Your task to perform on an android device: toggle location history Image 0: 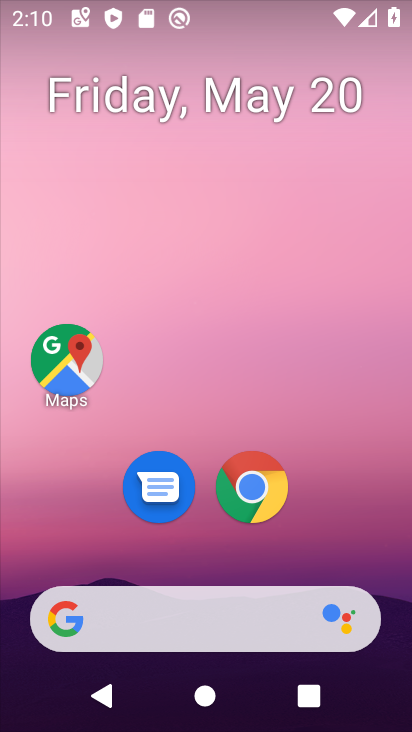
Step 0: drag from (339, 545) to (396, 7)
Your task to perform on an android device: toggle location history Image 1: 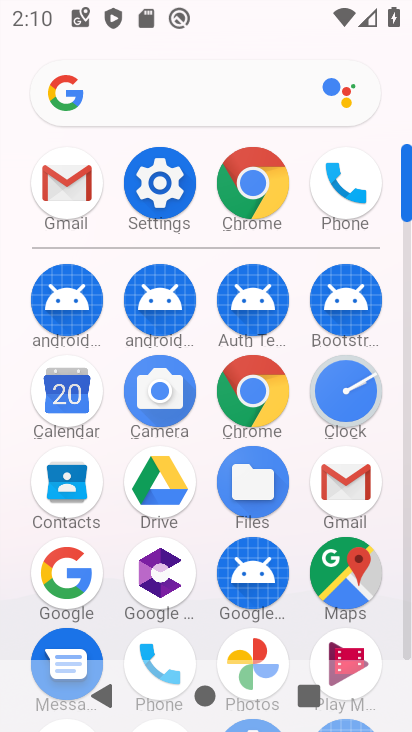
Step 1: click (175, 191)
Your task to perform on an android device: toggle location history Image 2: 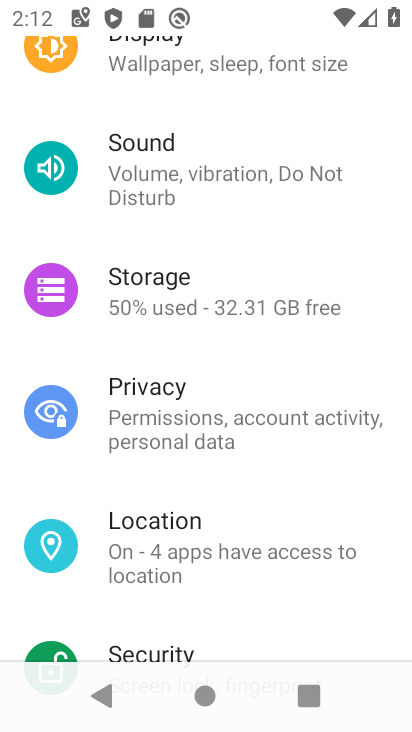
Step 2: click (190, 559)
Your task to perform on an android device: toggle location history Image 3: 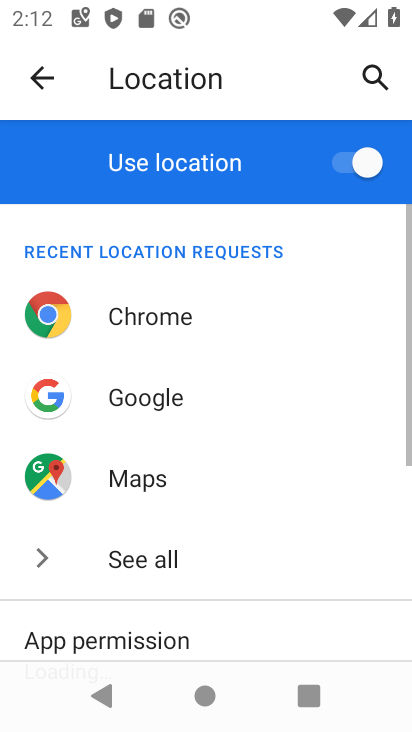
Step 3: drag from (188, 588) to (164, 151)
Your task to perform on an android device: toggle location history Image 4: 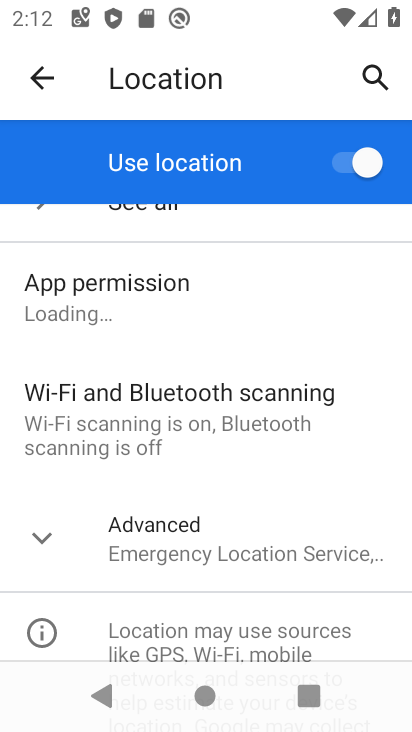
Step 4: drag from (211, 594) to (199, 292)
Your task to perform on an android device: toggle location history Image 5: 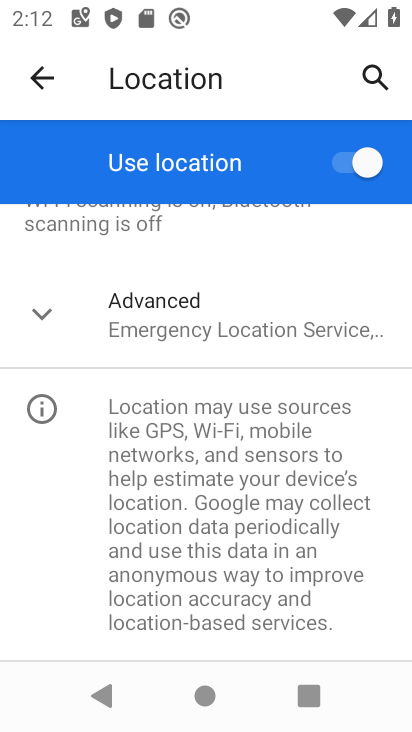
Step 5: click (195, 320)
Your task to perform on an android device: toggle location history Image 6: 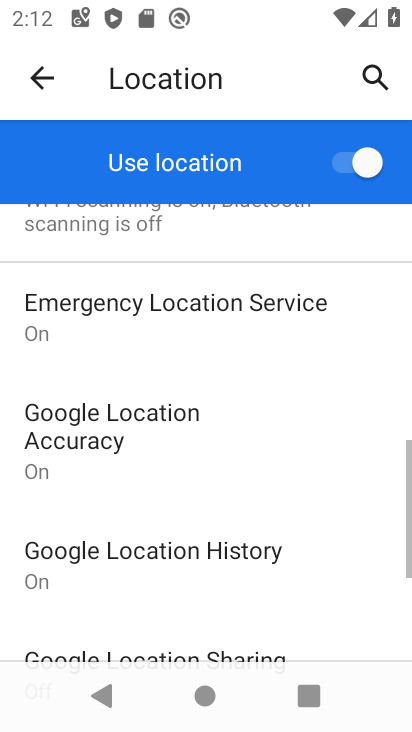
Step 6: drag from (224, 587) to (239, 307)
Your task to perform on an android device: toggle location history Image 7: 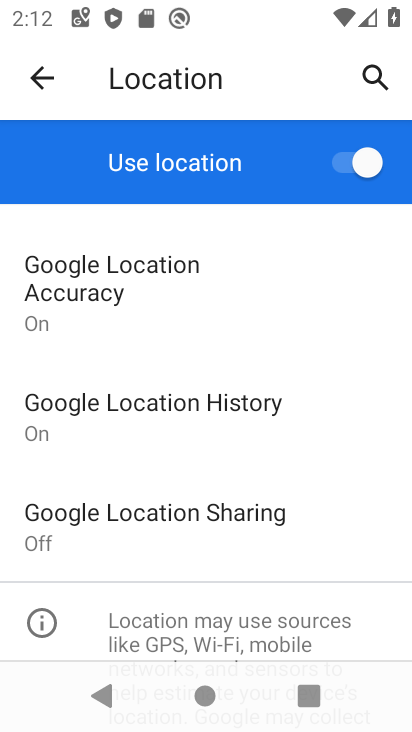
Step 7: drag from (229, 535) to (211, 300)
Your task to perform on an android device: toggle location history Image 8: 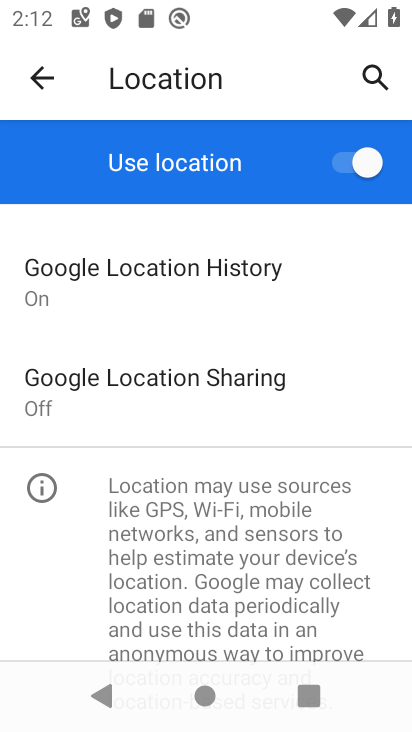
Step 8: drag from (171, 589) to (182, 345)
Your task to perform on an android device: toggle location history Image 9: 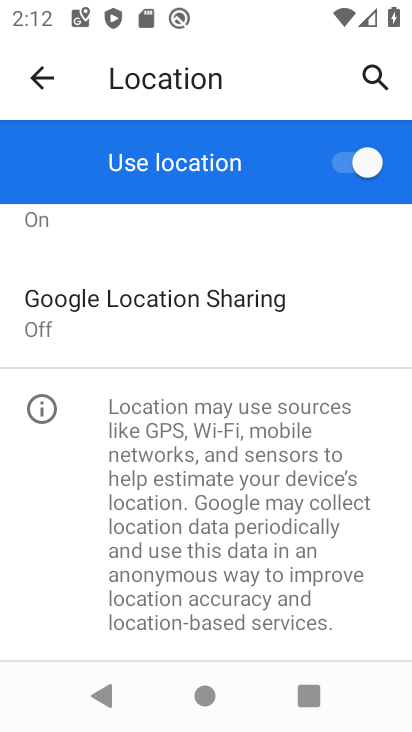
Step 9: drag from (181, 360) to (166, 652)
Your task to perform on an android device: toggle location history Image 10: 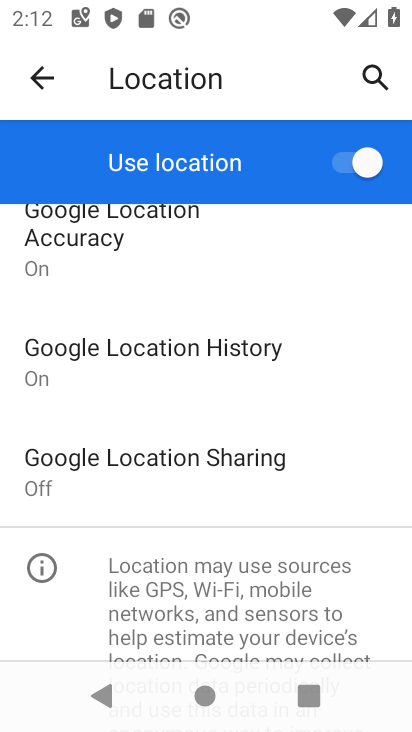
Step 10: click (159, 356)
Your task to perform on an android device: toggle location history Image 11: 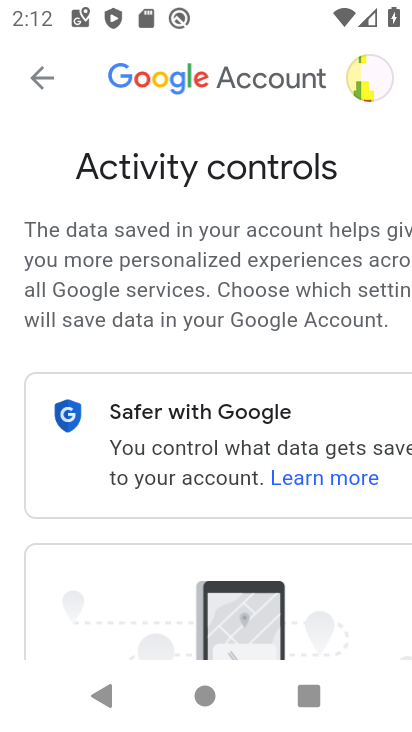
Step 11: drag from (329, 634) to (323, 209)
Your task to perform on an android device: toggle location history Image 12: 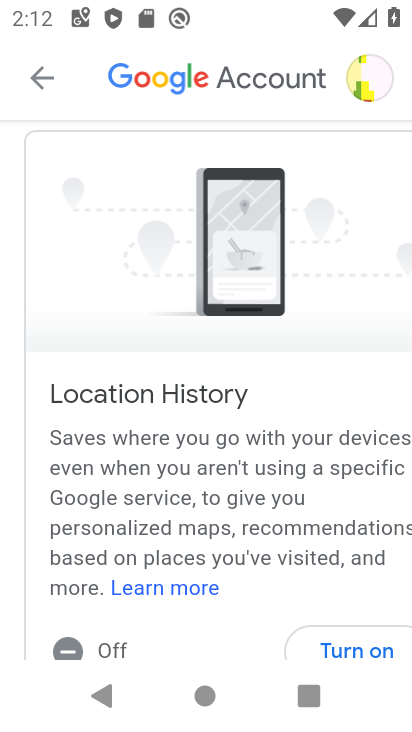
Step 12: drag from (290, 555) to (323, 169)
Your task to perform on an android device: toggle location history Image 13: 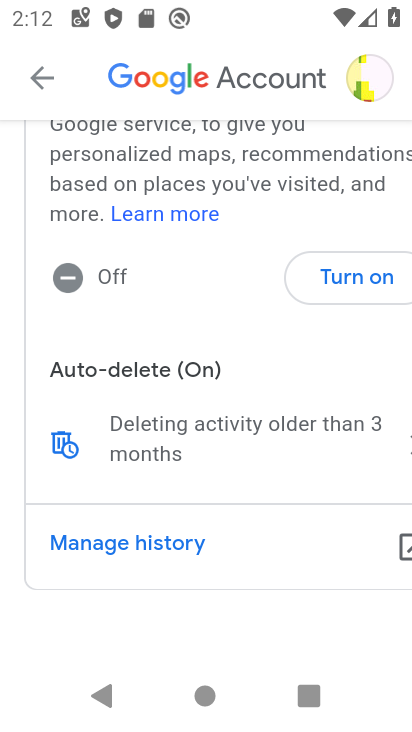
Step 13: click (354, 284)
Your task to perform on an android device: toggle location history Image 14: 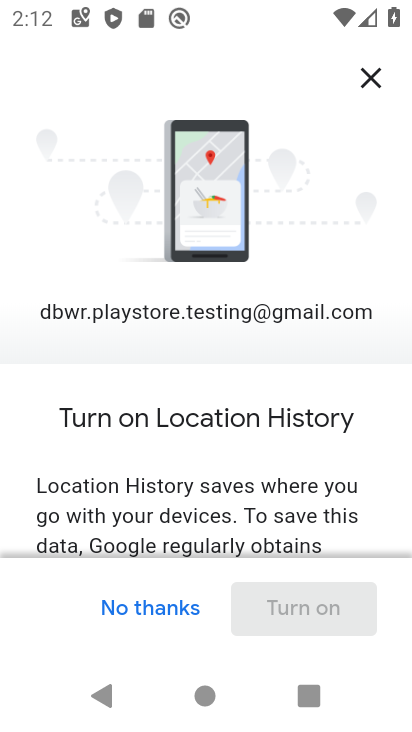
Step 14: drag from (303, 478) to (342, 141)
Your task to perform on an android device: toggle location history Image 15: 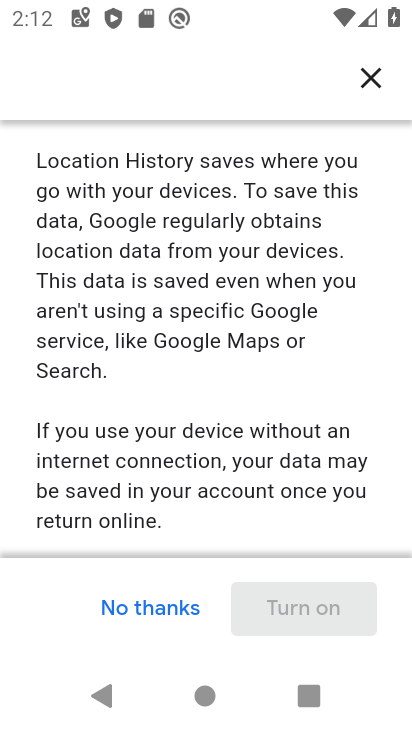
Step 15: drag from (308, 447) to (322, 138)
Your task to perform on an android device: toggle location history Image 16: 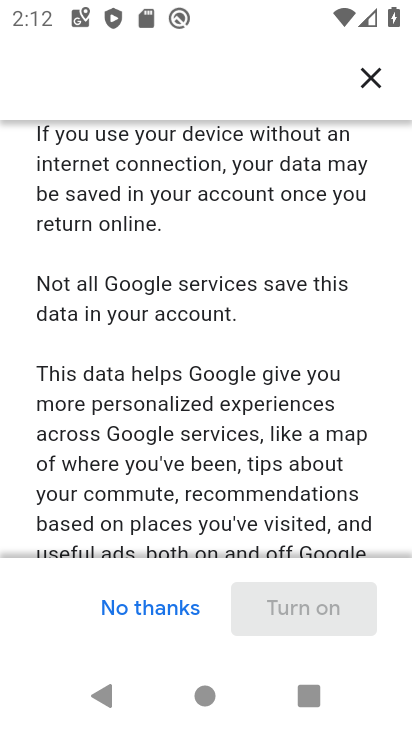
Step 16: drag from (300, 504) to (328, 187)
Your task to perform on an android device: toggle location history Image 17: 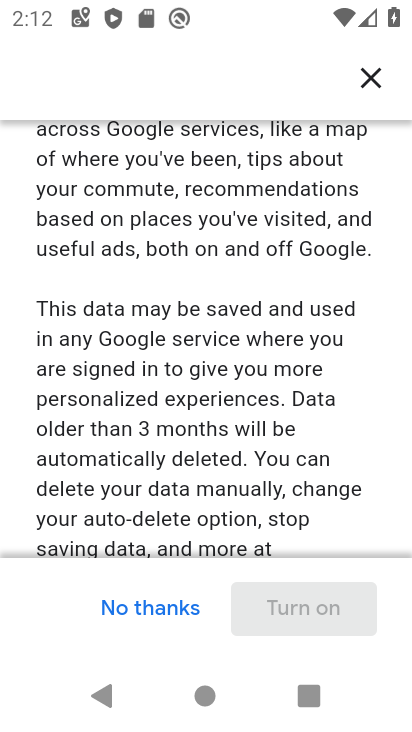
Step 17: drag from (291, 482) to (305, 157)
Your task to perform on an android device: toggle location history Image 18: 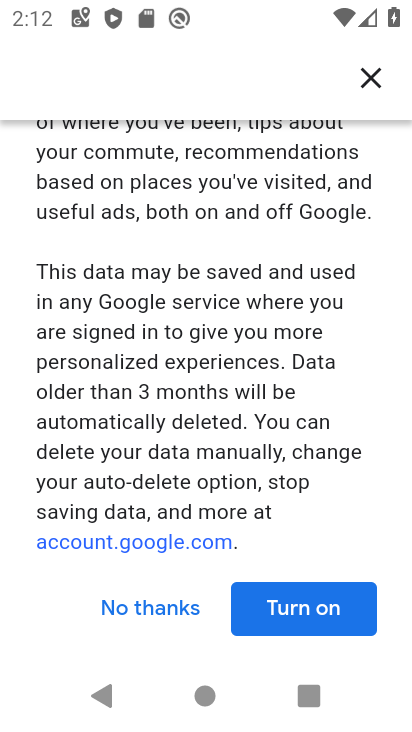
Step 18: click (315, 608)
Your task to perform on an android device: toggle location history Image 19: 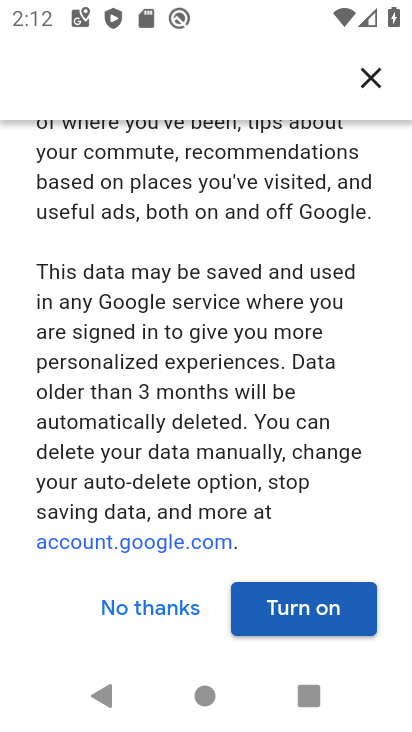
Step 19: click (315, 608)
Your task to perform on an android device: toggle location history Image 20: 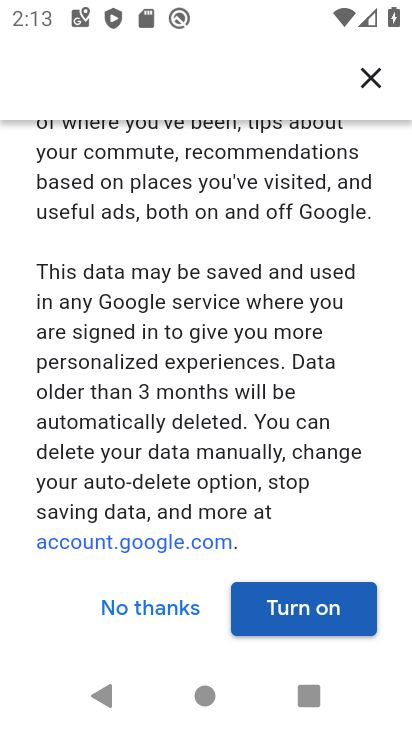
Step 20: click (322, 623)
Your task to perform on an android device: toggle location history Image 21: 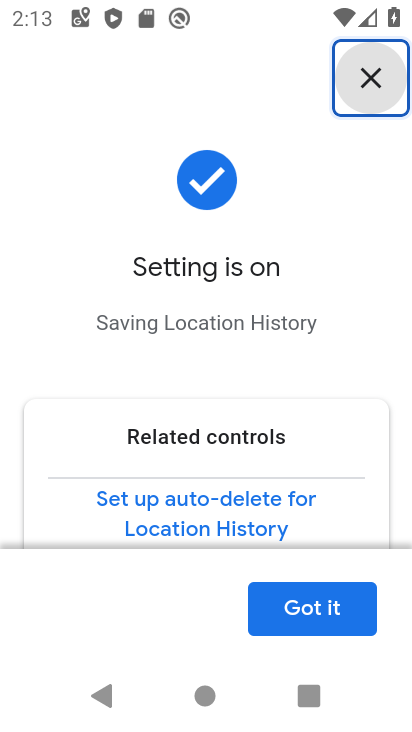
Step 21: click (321, 621)
Your task to perform on an android device: toggle location history Image 22: 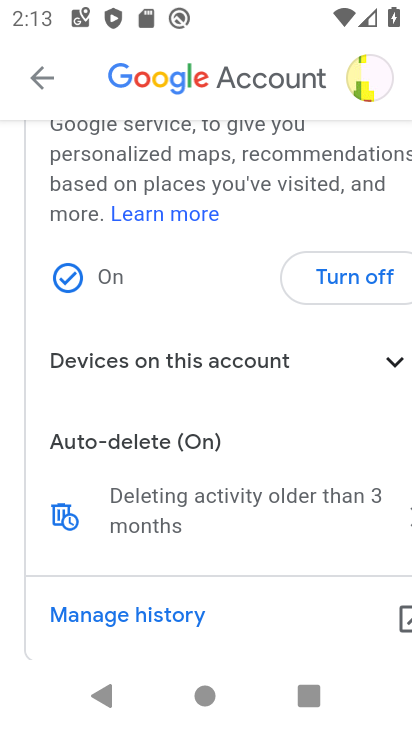
Step 22: task complete